Your task to perform on an android device: Open Maps and search for coffee Image 0: 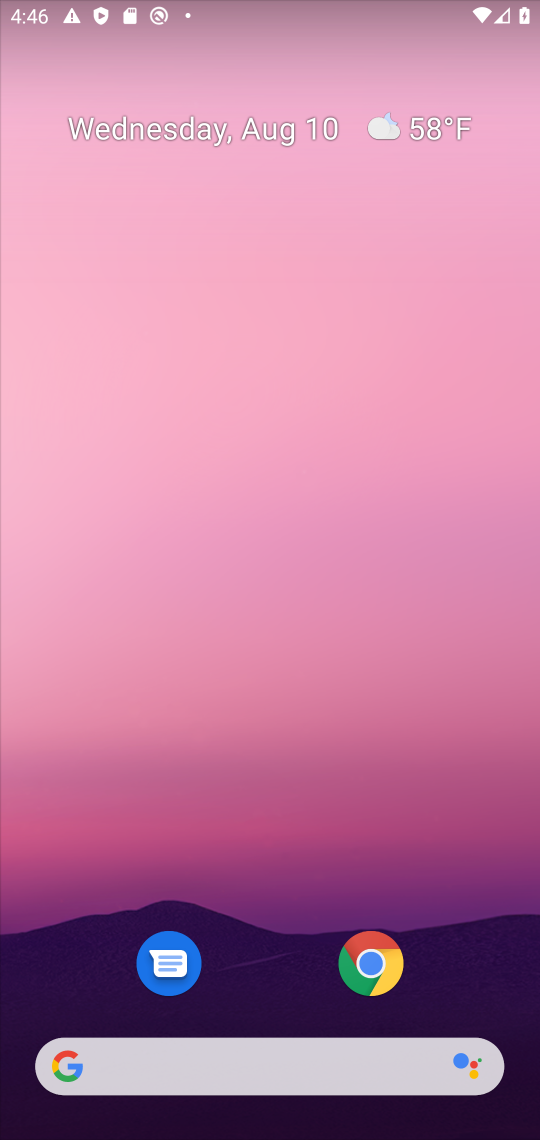
Step 0: drag from (285, 964) to (334, 98)
Your task to perform on an android device: Open Maps and search for coffee Image 1: 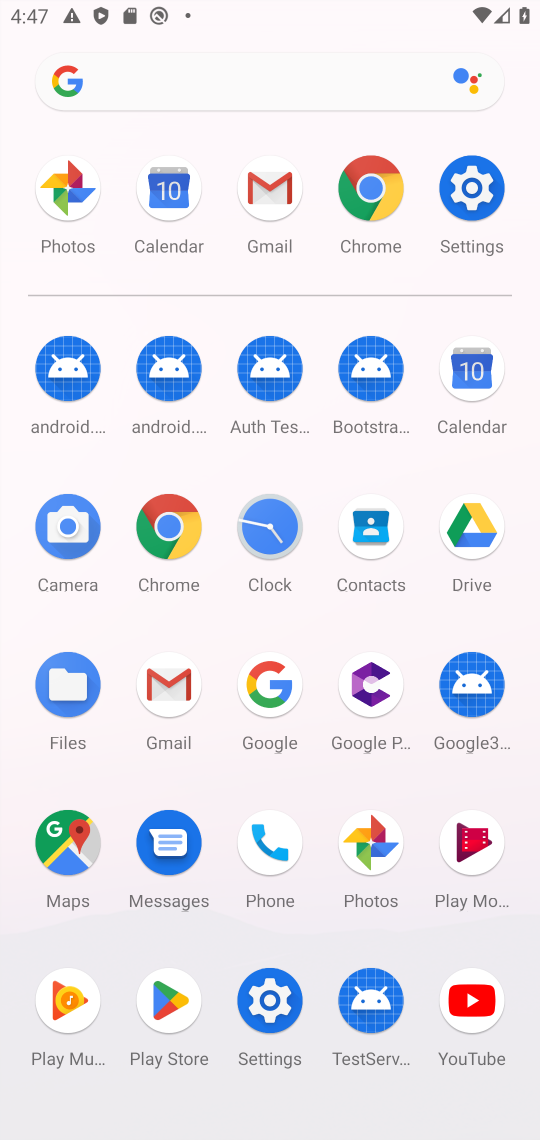
Step 1: click (56, 842)
Your task to perform on an android device: Open Maps and search for coffee Image 2: 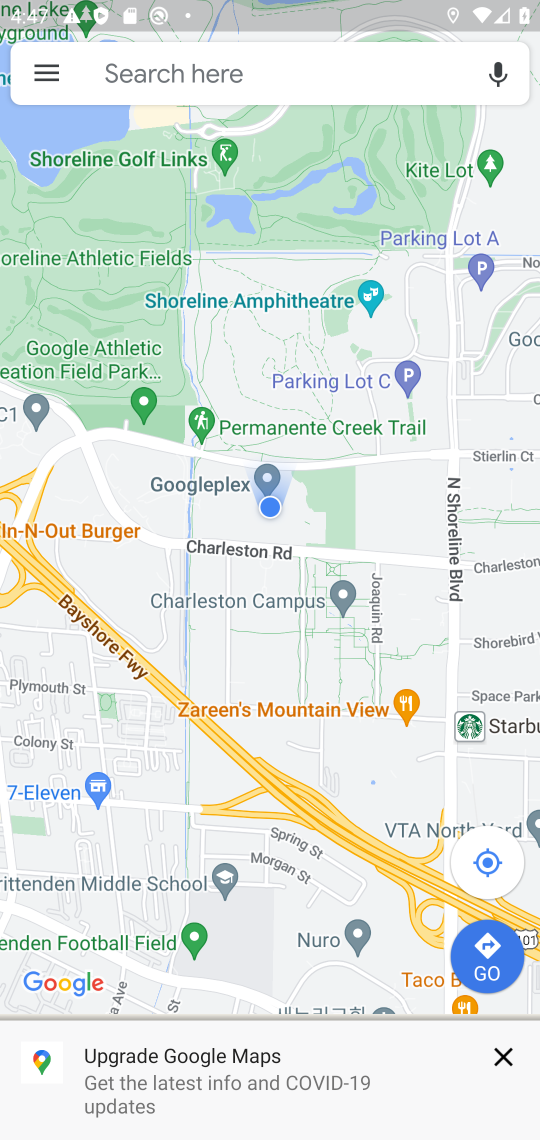
Step 2: click (148, 73)
Your task to perform on an android device: Open Maps and search for coffee Image 3: 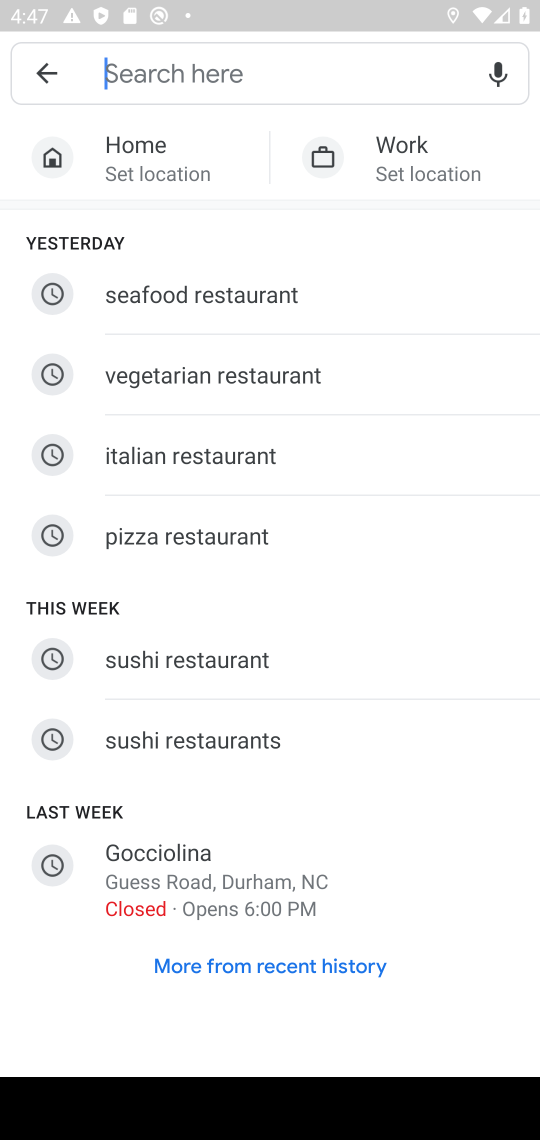
Step 3: type "coffee"
Your task to perform on an android device: Open Maps and search for coffee Image 4: 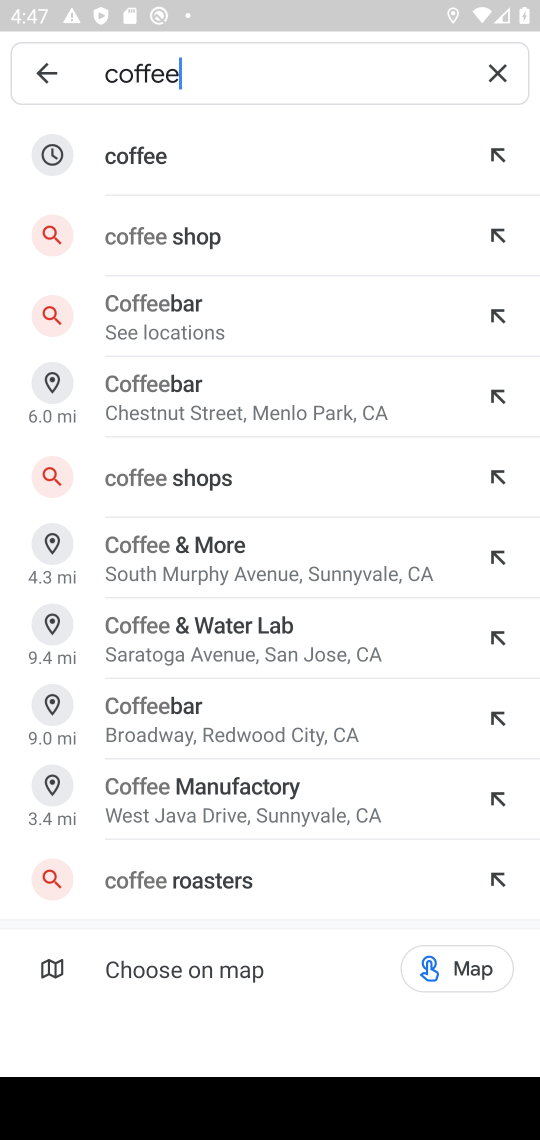
Step 4: click (134, 154)
Your task to perform on an android device: Open Maps and search for coffee Image 5: 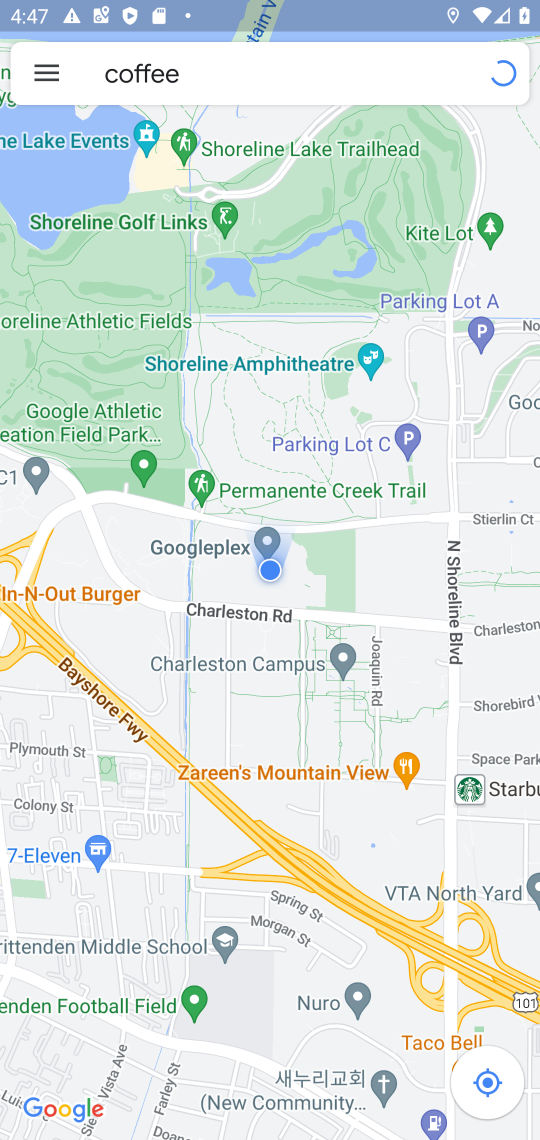
Step 5: task complete